Your task to perform on an android device: turn on bluetooth scan Image 0: 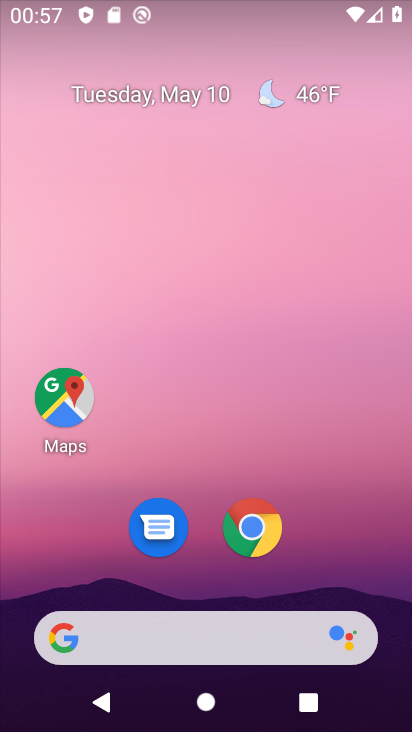
Step 0: drag from (352, 551) to (152, 121)
Your task to perform on an android device: turn on bluetooth scan Image 1: 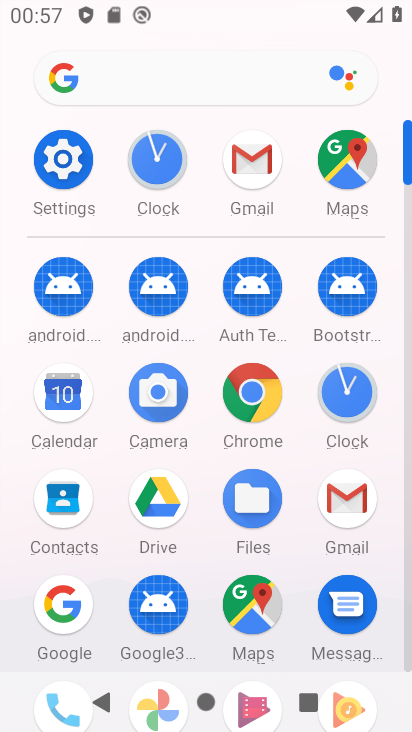
Step 1: click (65, 160)
Your task to perform on an android device: turn on bluetooth scan Image 2: 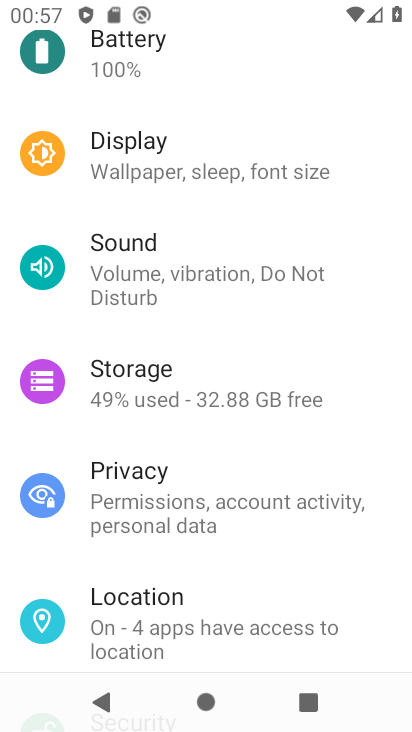
Step 2: click (178, 604)
Your task to perform on an android device: turn on bluetooth scan Image 3: 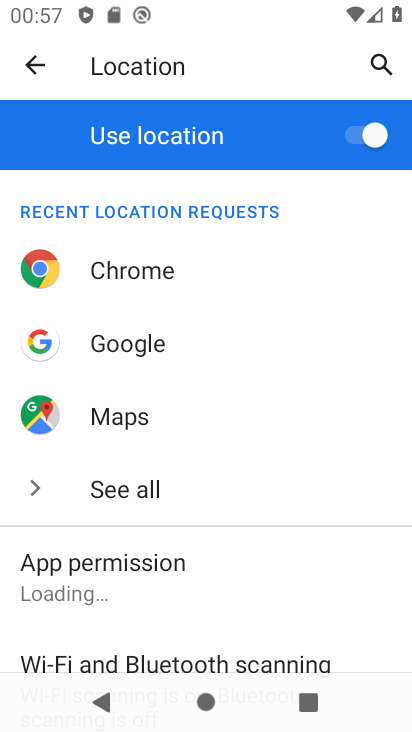
Step 3: click (165, 655)
Your task to perform on an android device: turn on bluetooth scan Image 4: 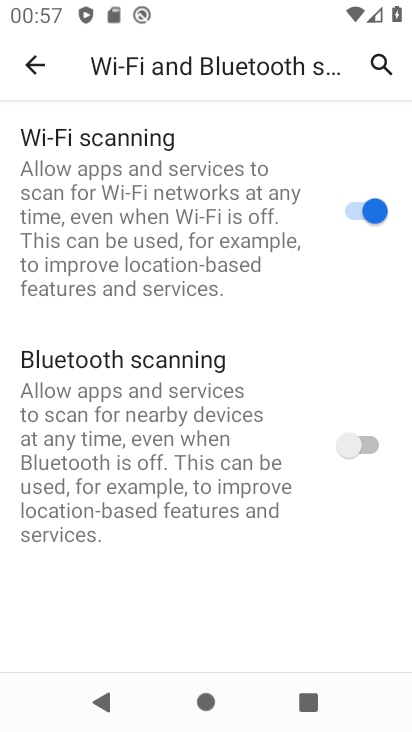
Step 4: click (348, 448)
Your task to perform on an android device: turn on bluetooth scan Image 5: 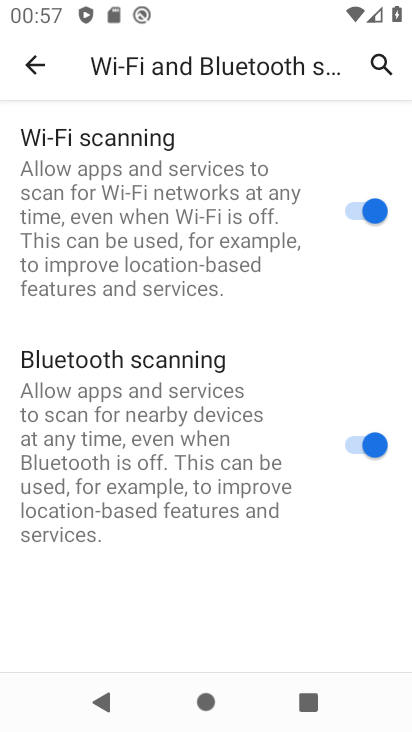
Step 5: task complete